Your task to perform on an android device: change text size in settings app Image 0: 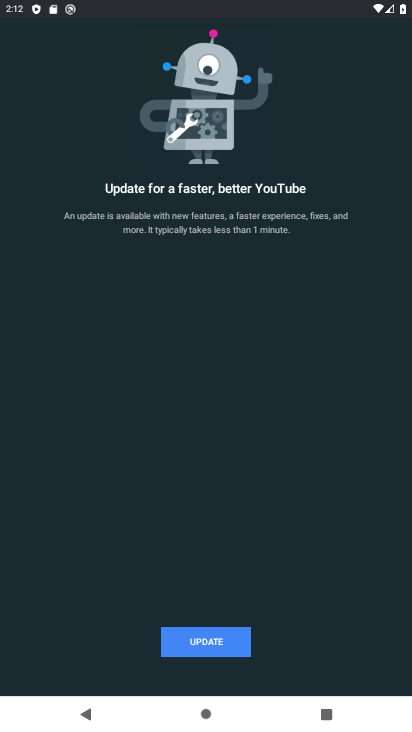
Step 0: press home button
Your task to perform on an android device: change text size in settings app Image 1: 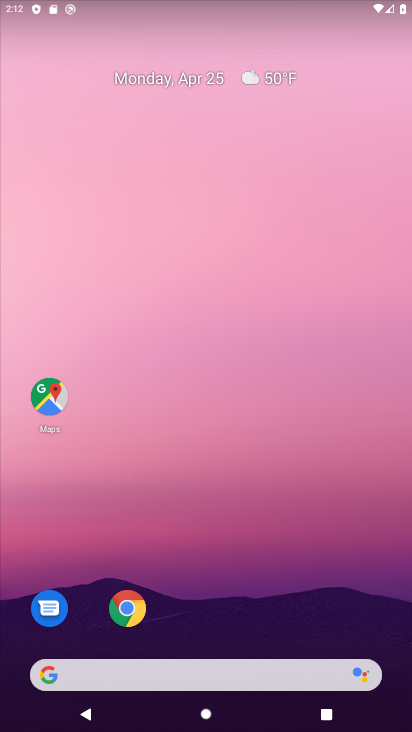
Step 1: drag from (197, 574) to (212, 173)
Your task to perform on an android device: change text size in settings app Image 2: 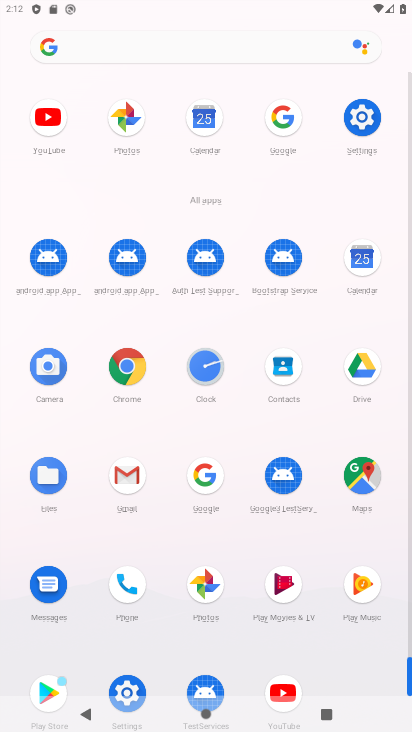
Step 2: click (362, 111)
Your task to perform on an android device: change text size in settings app Image 3: 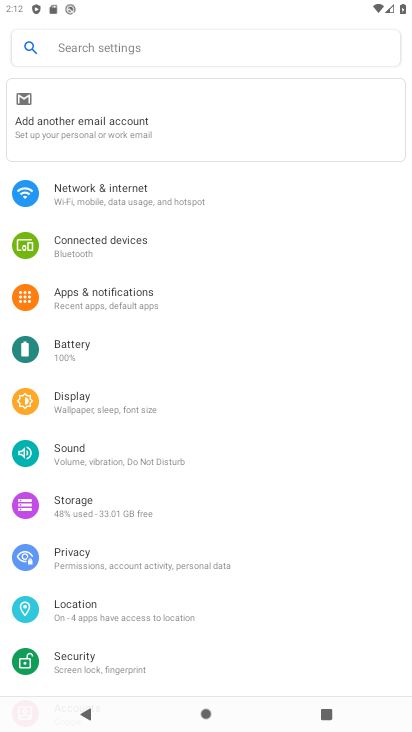
Step 3: click (147, 399)
Your task to perform on an android device: change text size in settings app Image 4: 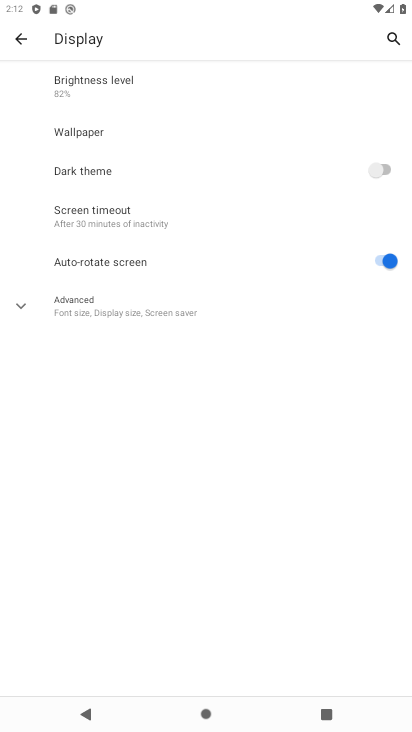
Step 4: click (112, 307)
Your task to perform on an android device: change text size in settings app Image 5: 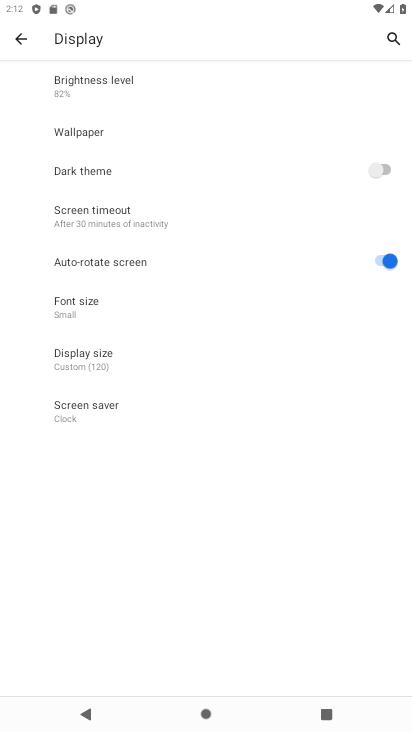
Step 5: click (99, 309)
Your task to perform on an android device: change text size in settings app Image 6: 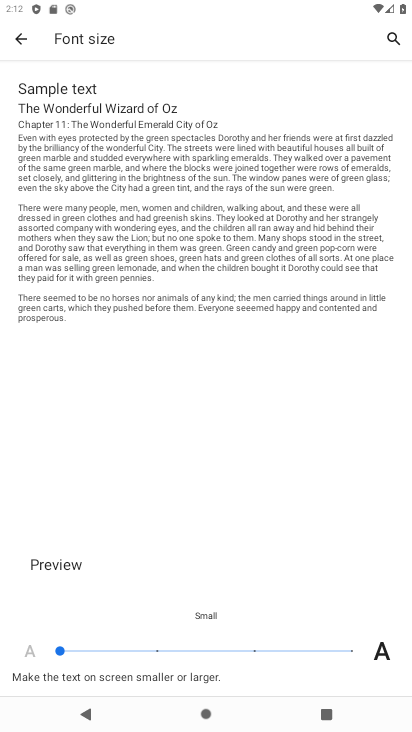
Step 6: click (150, 653)
Your task to perform on an android device: change text size in settings app Image 7: 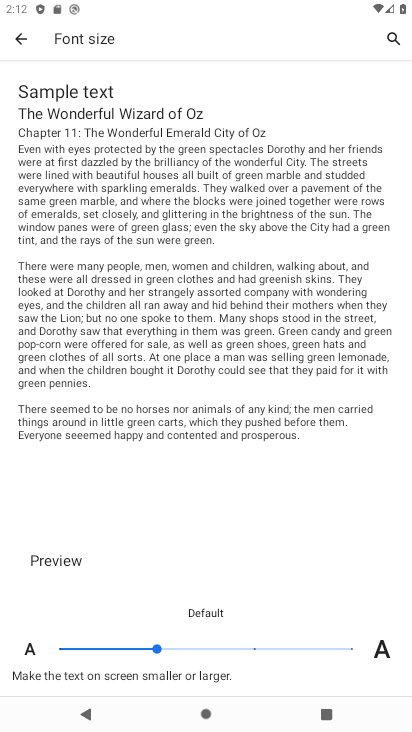
Step 7: task complete